Your task to perform on an android device: Open Reddit.com Image 0: 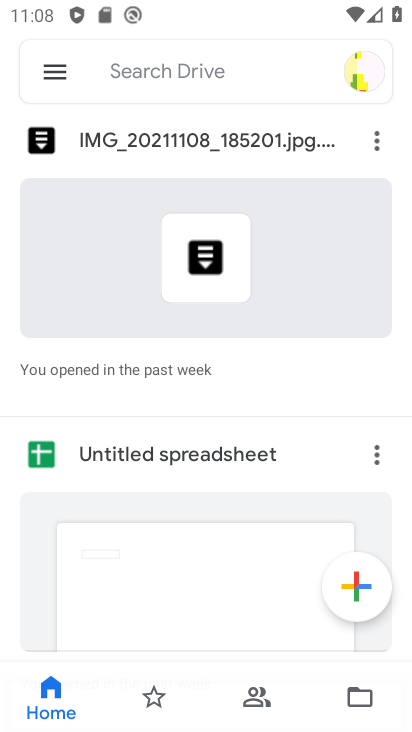
Step 0: press home button
Your task to perform on an android device: Open Reddit.com Image 1: 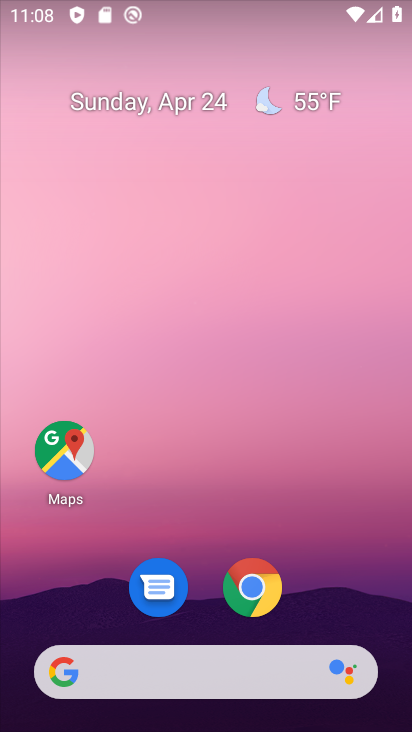
Step 1: click (406, 457)
Your task to perform on an android device: Open Reddit.com Image 2: 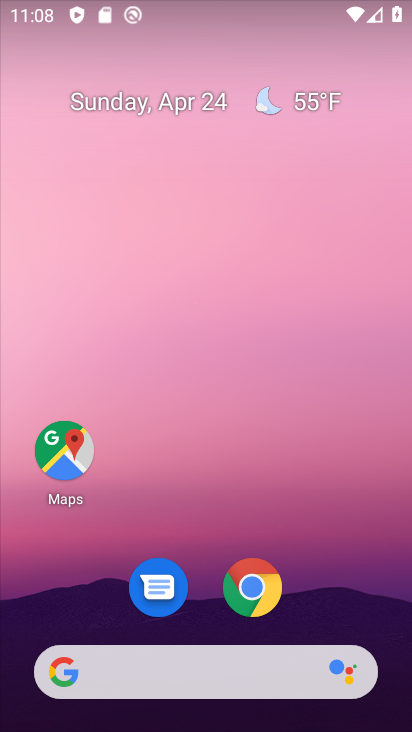
Step 2: click (260, 561)
Your task to perform on an android device: Open Reddit.com Image 3: 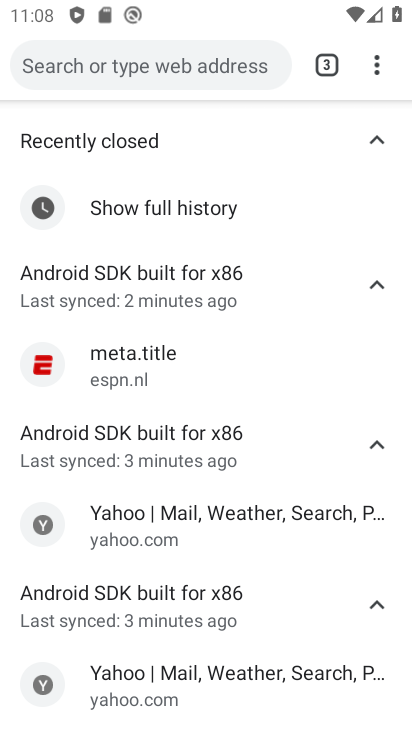
Step 3: click (188, 62)
Your task to perform on an android device: Open Reddit.com Image 4: 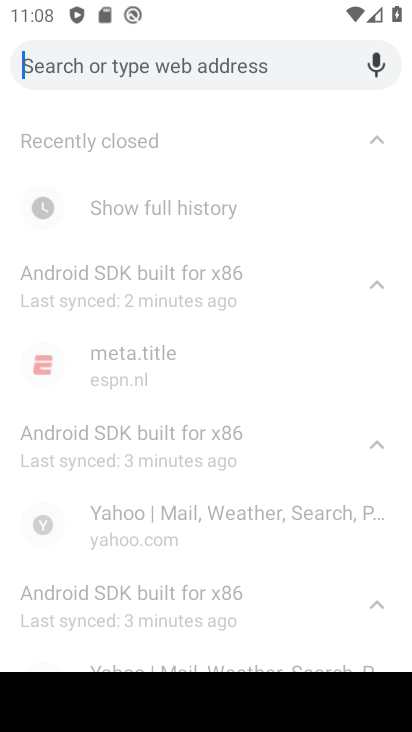
Step 4: type "reddit.com"
Your task to perform on an android device: Open Reddit.com Image 5: 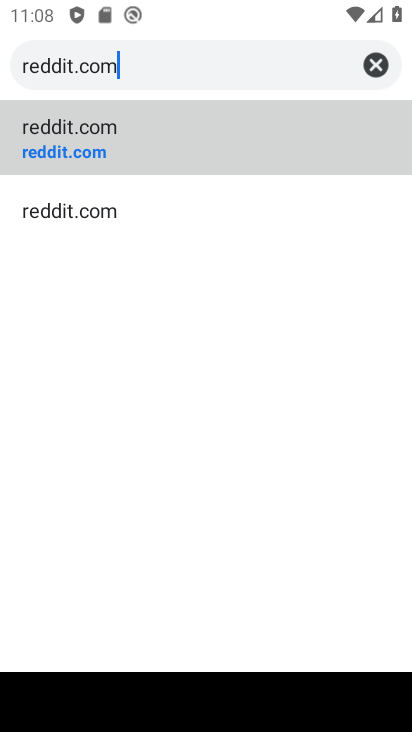
Step 5: click (37, 149)
Your task to perform on an android device: Open Reddit.com Image 6: 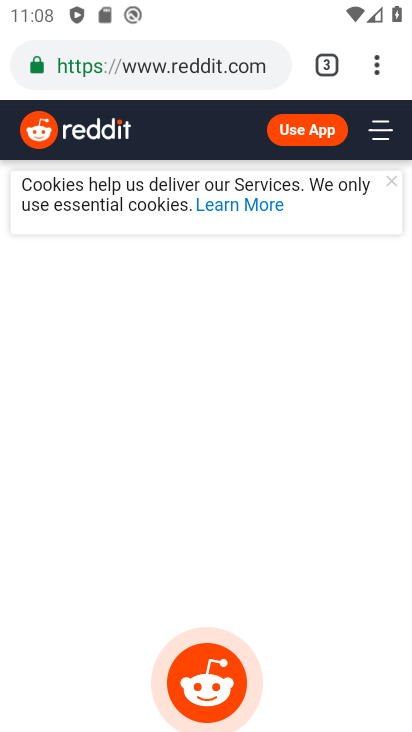
Step 6: task complete